Your task to perform on an android device: turn off location Image 0: 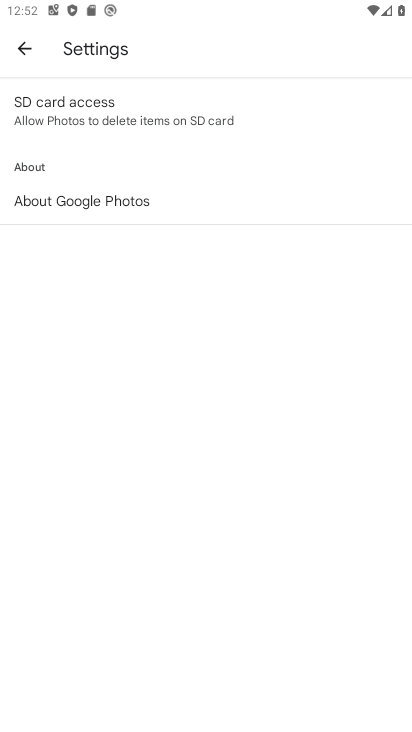
Step 0: press home button
Your task to perform on an android device: turn off location Image 1: 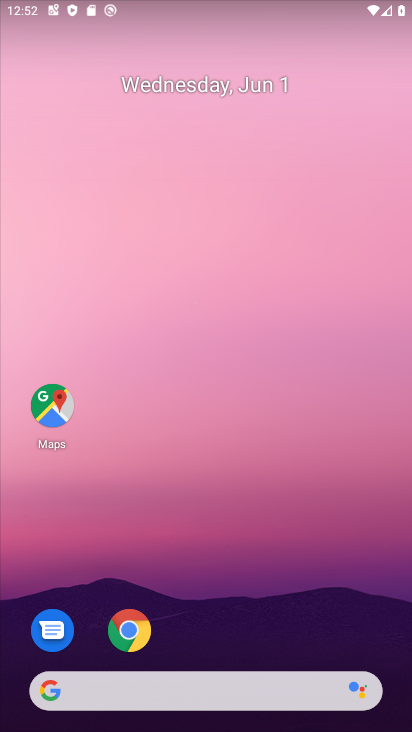
Step 1: click (316, 54)
Your task to perform on an android device: turn off location Image 2: 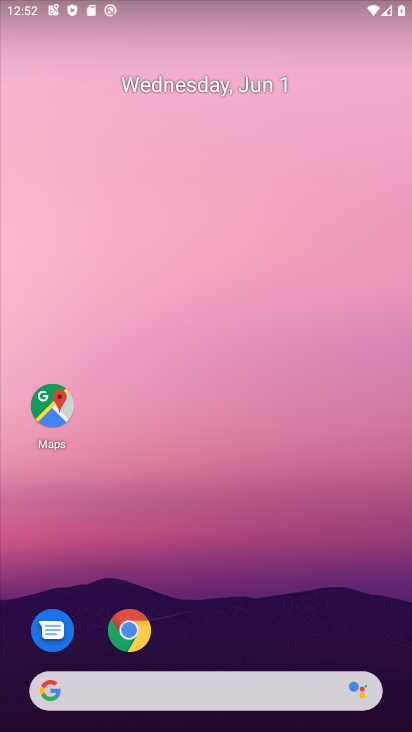
Step 2: drag from (263, 520) to (267, 134)
Your task to perform on an android device: turn off location Image 3: 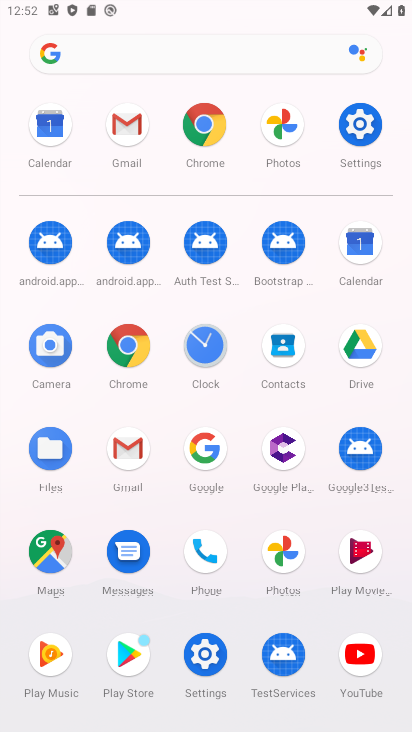
Step 3: click (370, 123)
Your task to perform on an android device: turn off location Image 4: 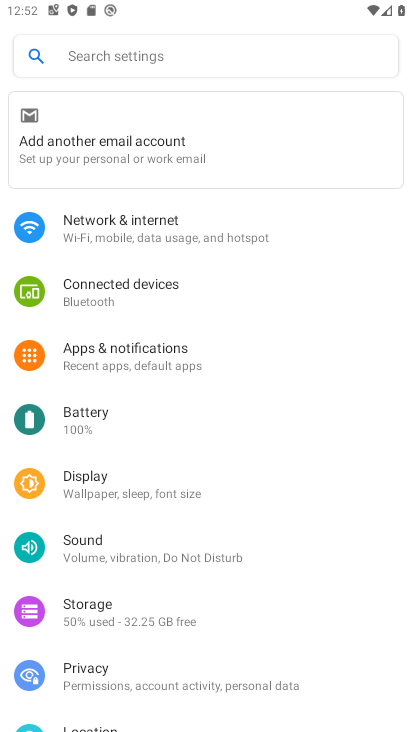
Step 4: drag from (293, 624) to (308, 391)
Your task to perform on an android device: turn off location Image 5: 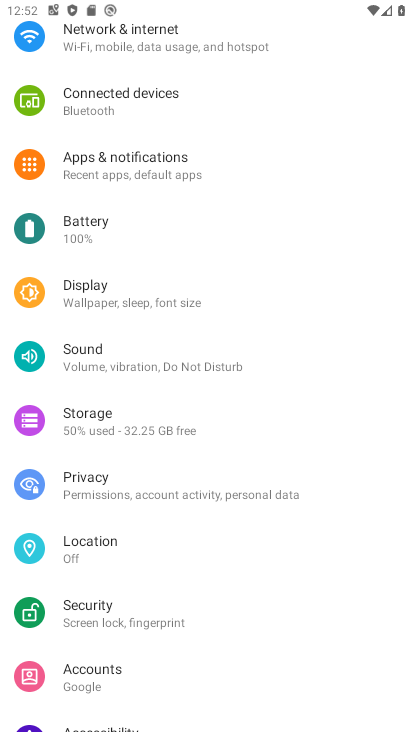
Step 5: click (170, 546)
Your task to perform on an android device: turn off location Image 6: 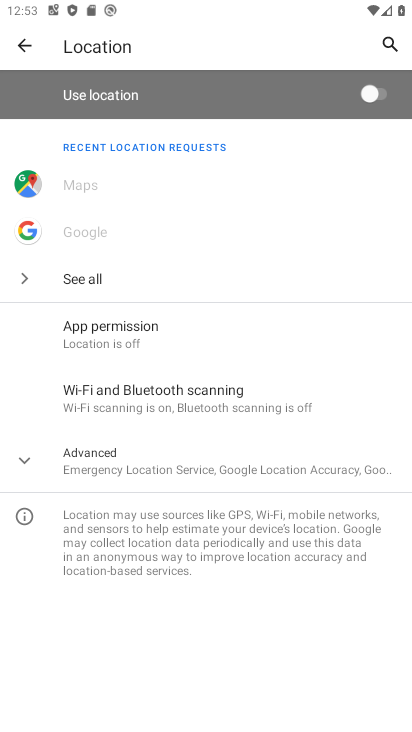
Step 6: task complete